Your task to perform on an android device: Go to notification settings Image 0: 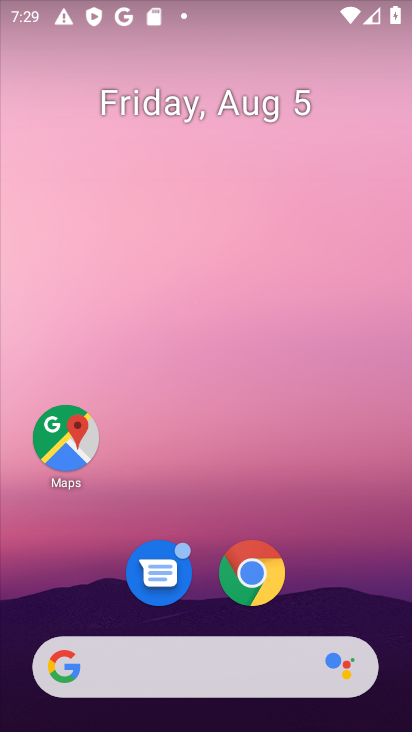
Step 0: drag from (367, 583) to (369, 13)
Your task to perform on an android device: Go to notification settings Image 1: 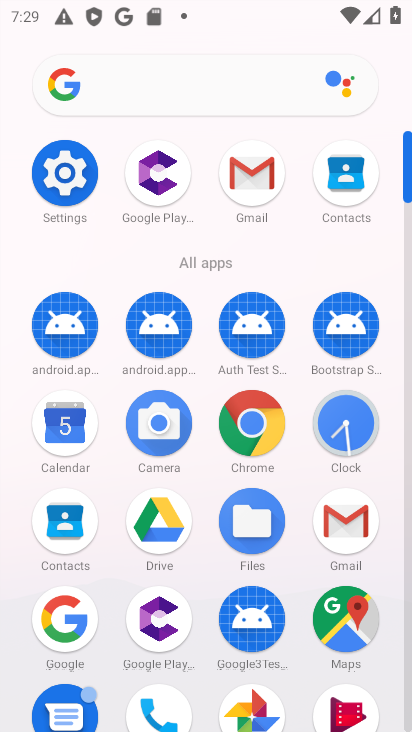
Step 1: click (73, 165)
Your task to perform on an android device: Go to notification settings Image 2: 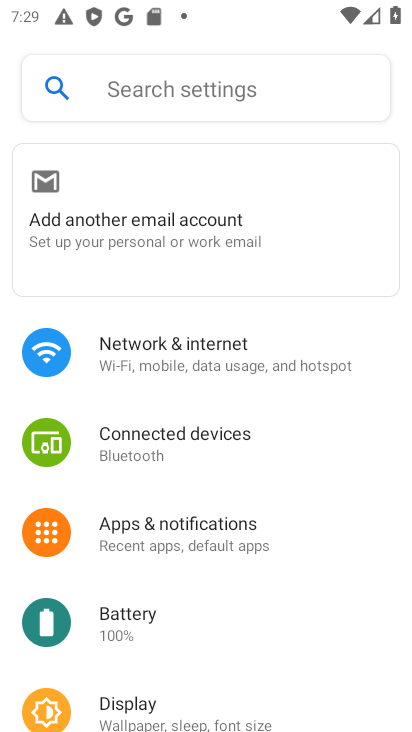
Step 2: click (179, 519)
Your task to perform on an android device: Go to notification settings Image 3: 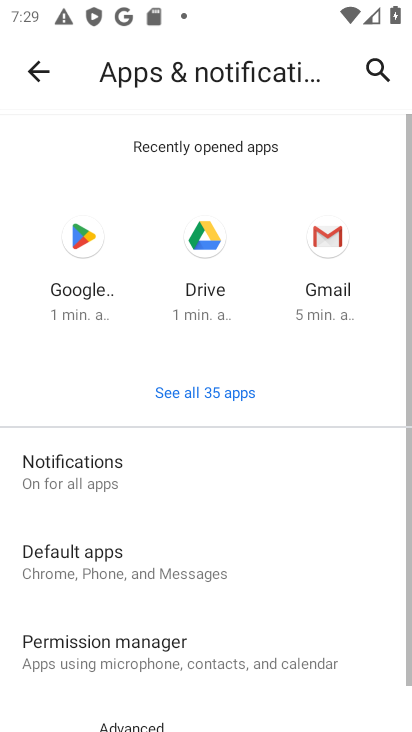
Step 3: click (103, 477)
Your task to perform on an android device: Go to notification settings Image 4: 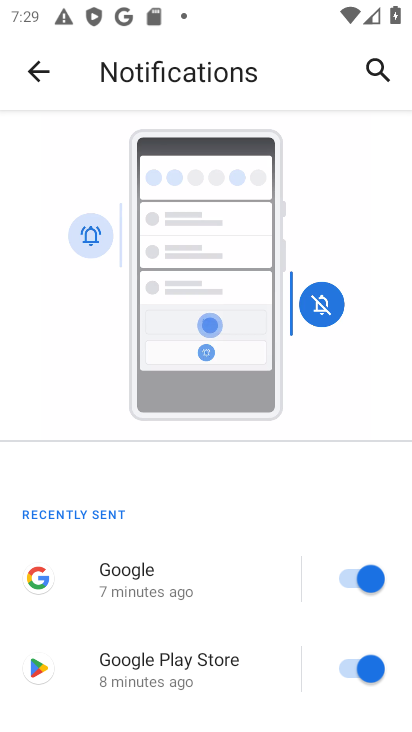
Step 4: task complete